Your task to perform on an android device: Turn off the flashlight Image 0: 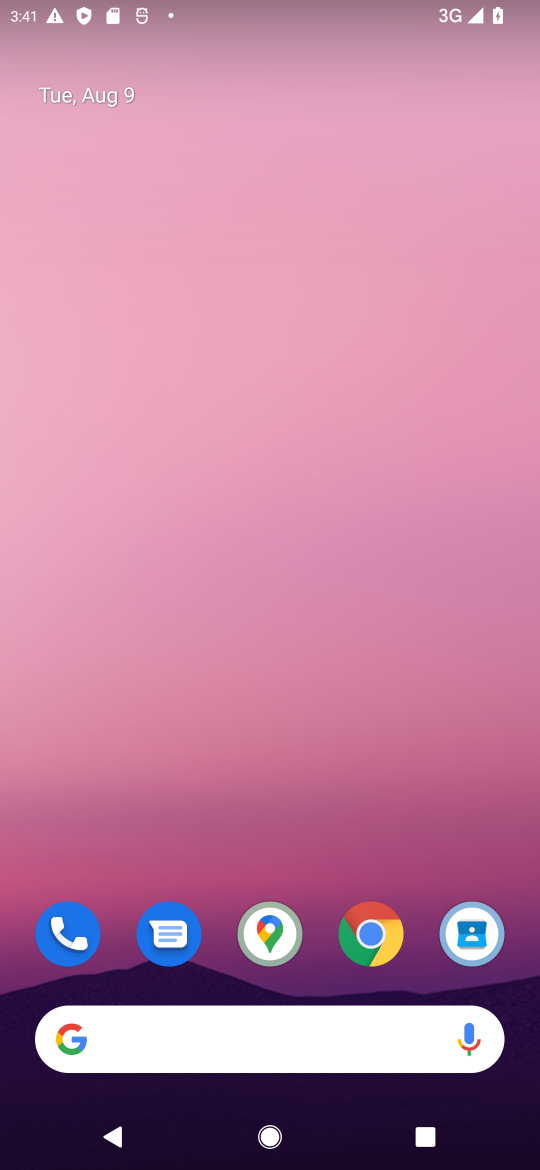
Step 0: task complete